Your task to perform on an android device: Open Chrome and go to the settings page Image 0: 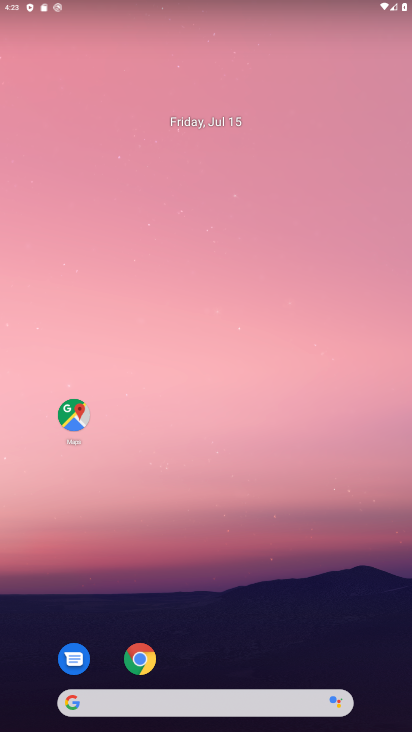
Step 0: click (144, 670)
Your task to perform on an android device: Open Chrome and go to the settings page Image 1: 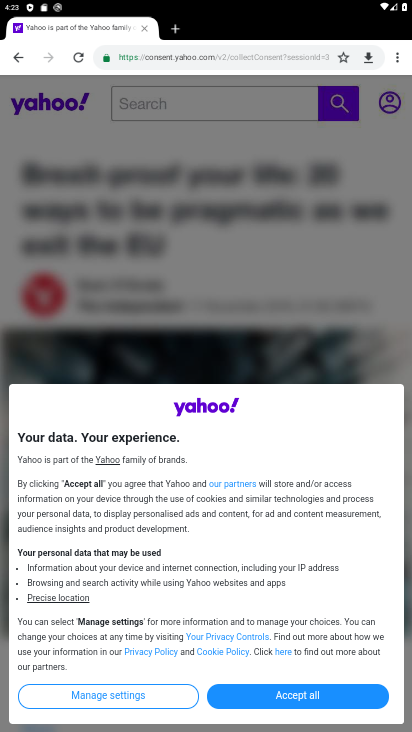
Step 1: click (404, 64)
Your task to perform on an android device: Open Chrome and go to the settings page Image 2: 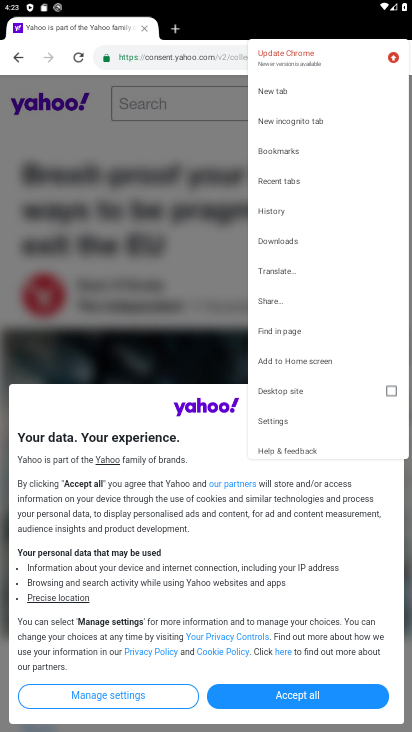
Step 2: click (293, 415)
Your task to perform on an android device: Open Chrome and go to the settings page Image 3: 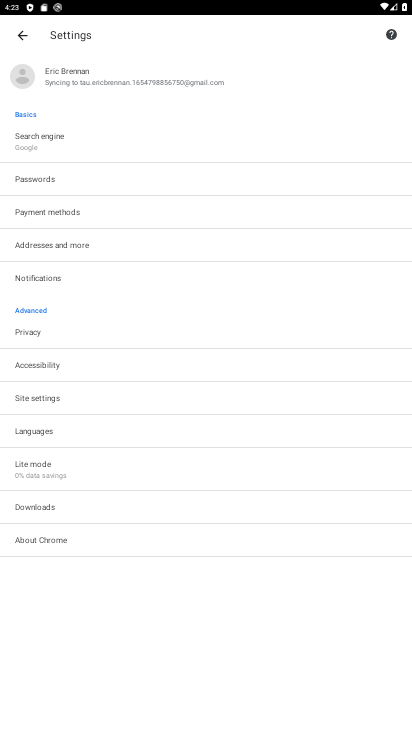
Step 3: click (285, 415)
Your task to perform on an android device: Open Chrome and go to the settings page Image 4: 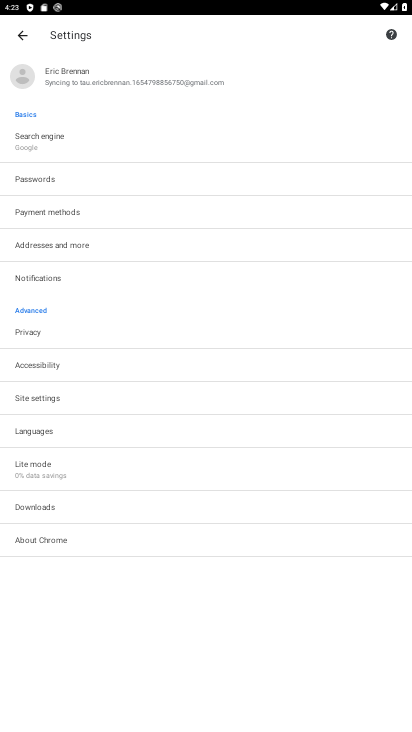
Step 4: click (285, 415)
Your task to perform on an android device: Open Chrome and go to the settings page Image 5: 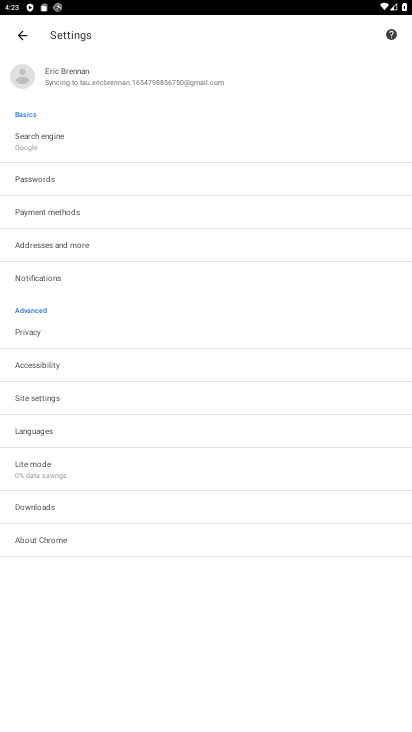
Step 5: task complete